Your task to perform on an android device: turn off airplane mode Image 0: 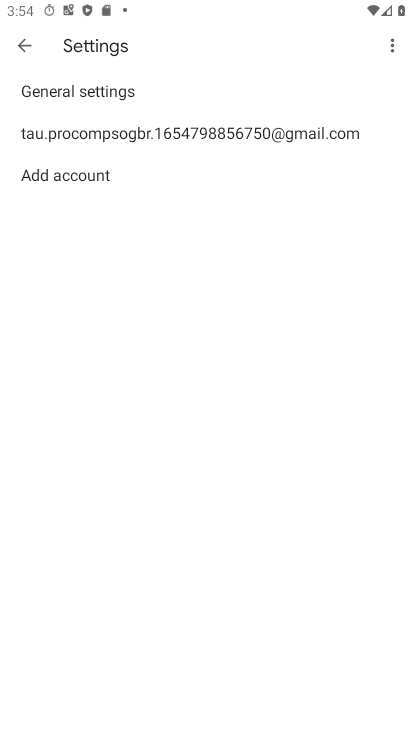
Step 0: press home button
Your task to perform on an android device: turn off airplane mode Image 1: 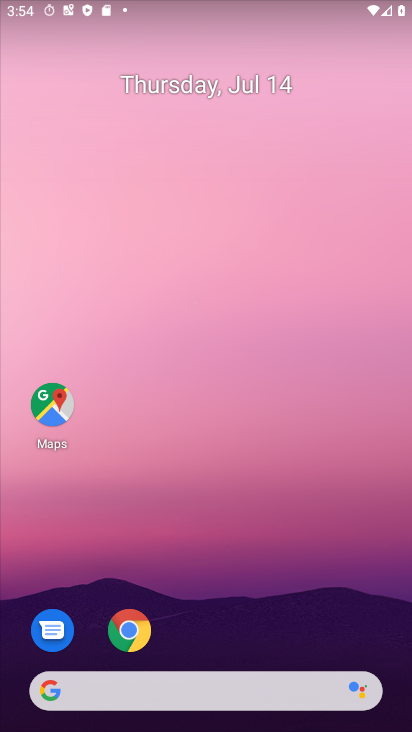
Step 1: drag from (219, 712) to (228, 199)
Your task to perform on an android device: turn off airplane mode Image 2: 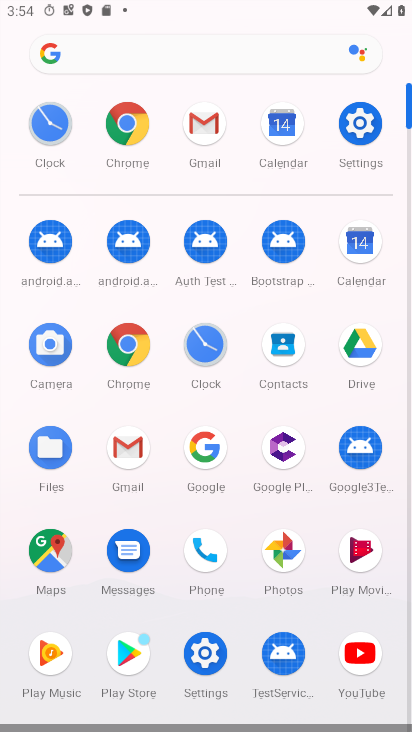
Step 2: click (360, 122)
Your task to perform on an android device: turn off airplane mode Image 3: 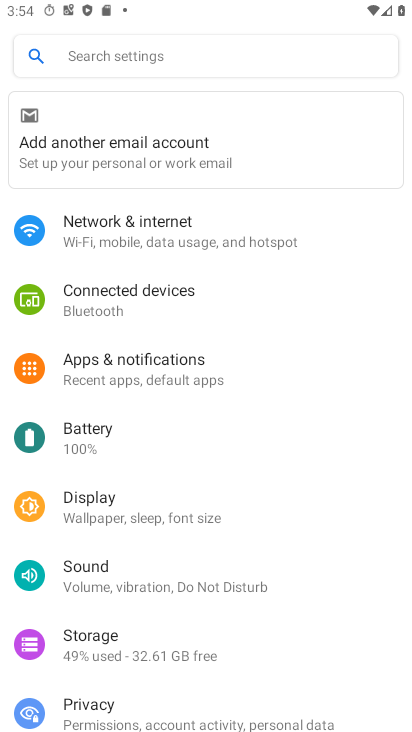
Step 3: click (120, 235)
Your task to perform on an android device: turn off airplane mode Image 4: 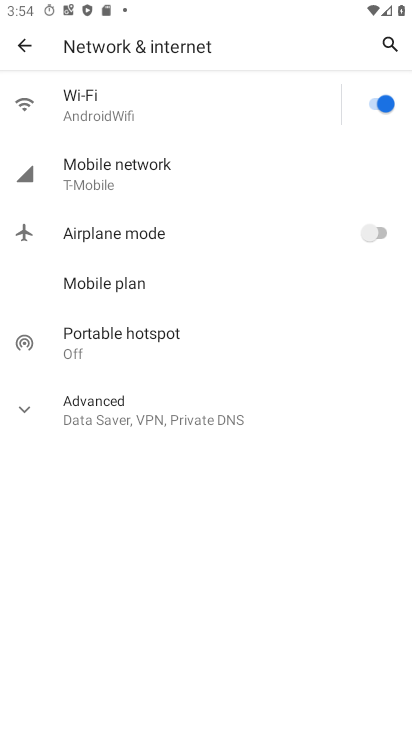
Step 4: task complete